Your task to perform on an android device: turn smart compose on in the gmail app Image 0: 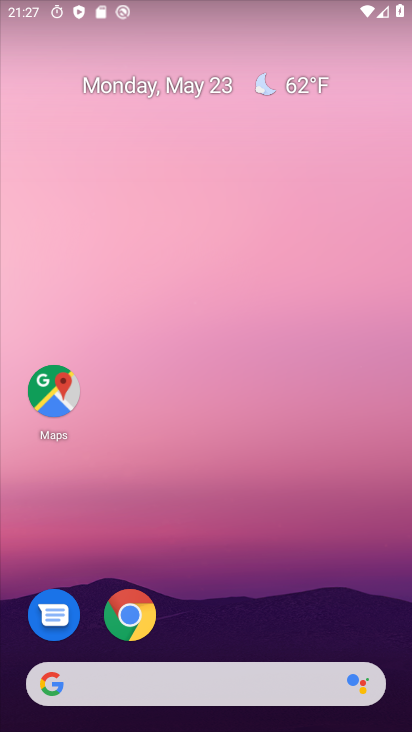
Step 0: drag from (205, 612) to (248, 27)
Your task to perform on an android device: turn smart compose on in the gmail app Image 1: 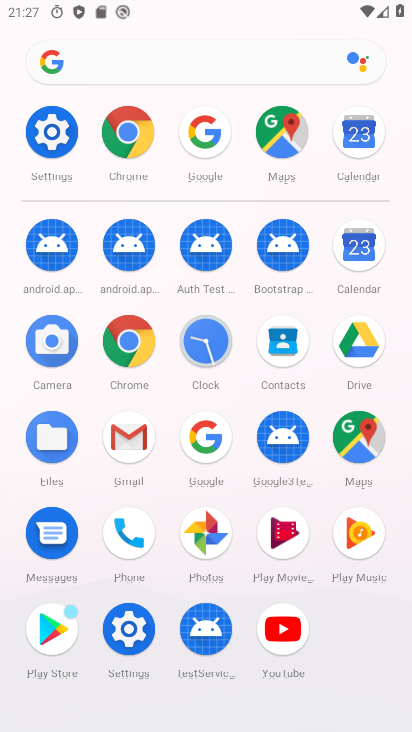
Step 1: click (130, 441)
Your task to perform on an android device: turn smart compose on in the gmail app Image 2: 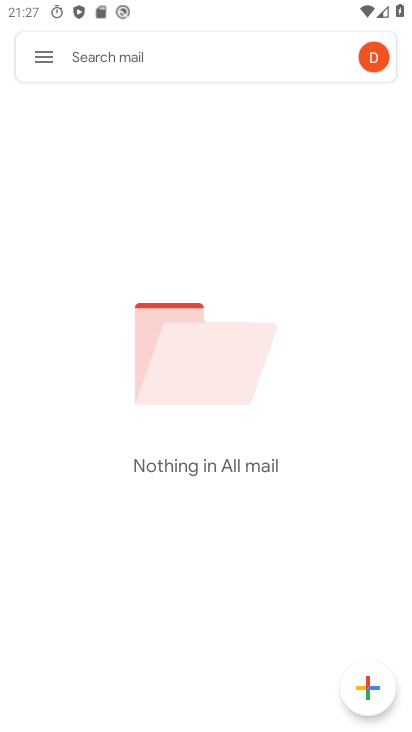
Step 2: click (51, 57)
Your task to perform on an android device: turn smart compose on in the gmail app Image 3: 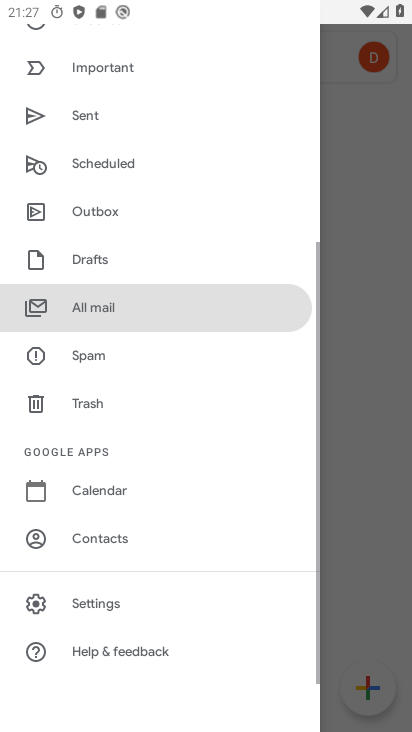
Step 3: click (100, 599)
Your task to perform on an android device: turn smart compose on in the gmail app Image 4: 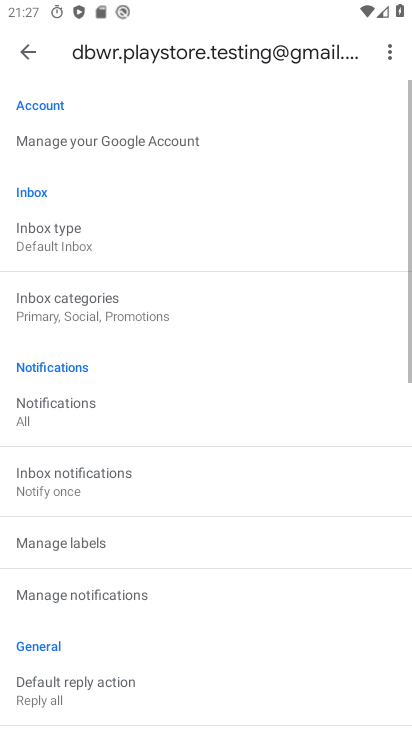
Step 4: task complete